Your task to perform on an android device: search for starred emails in the gmail app Image 0: 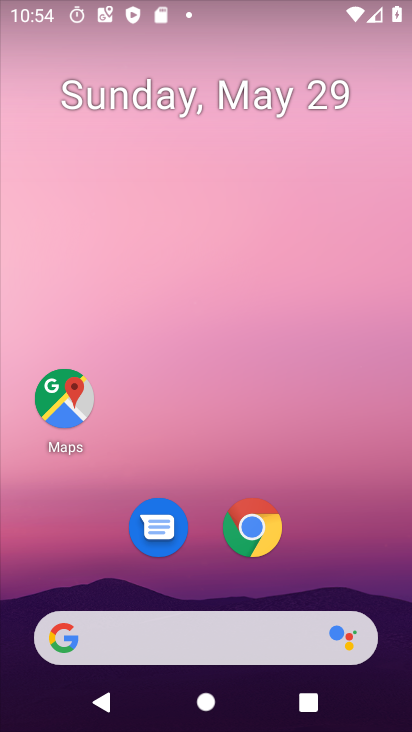
Step 0: drag from (357, 551) to (284, 84)
Your task to perform on an android device: search for starred emails in the gmail app Image 1: 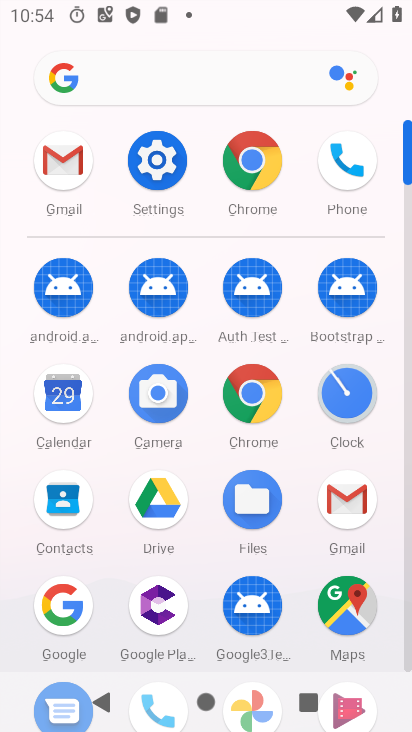
Step 1: click (68, 178)
Your task to perform on an android device: search for starred emails in the gmail app Image 2: 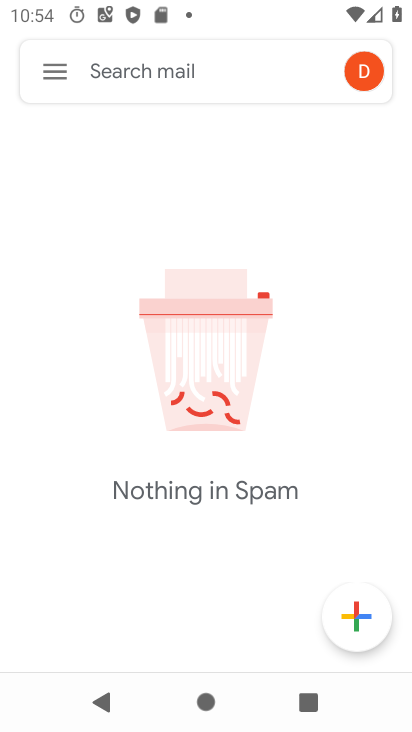
Step 2: click (45, 76)
Your task to perform on an android device: search for starred emails in the gmail app Image 3: 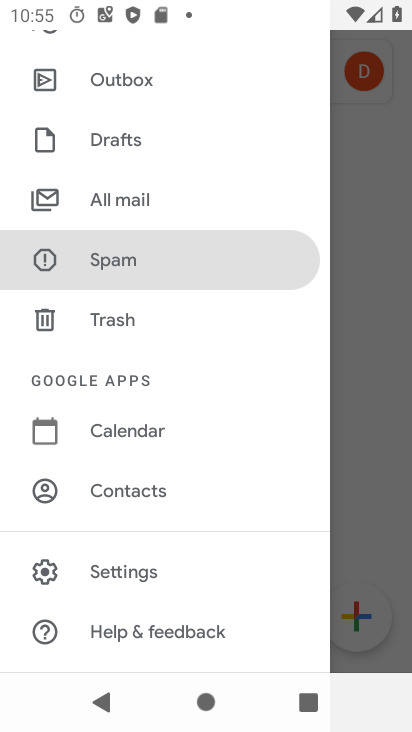
Step 3: drag from (134, 117) to (181, 539)
Your task to perform on an android device: search for starred emails in the gmail app Image 4: 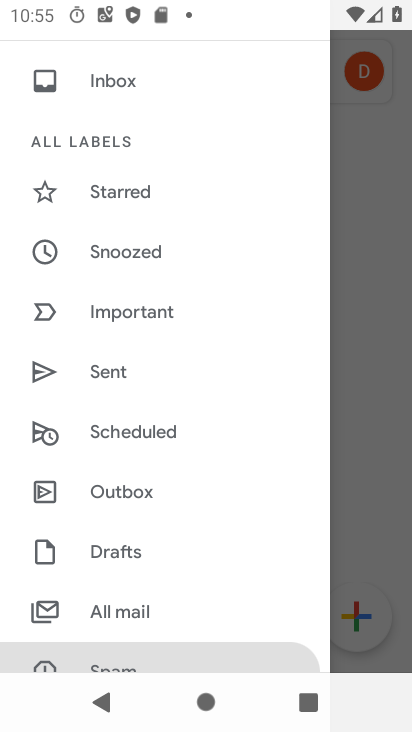
Step 4: click (145, 198)
Your task to perform on an android device: search for starred emails in the gmail app Image 5: 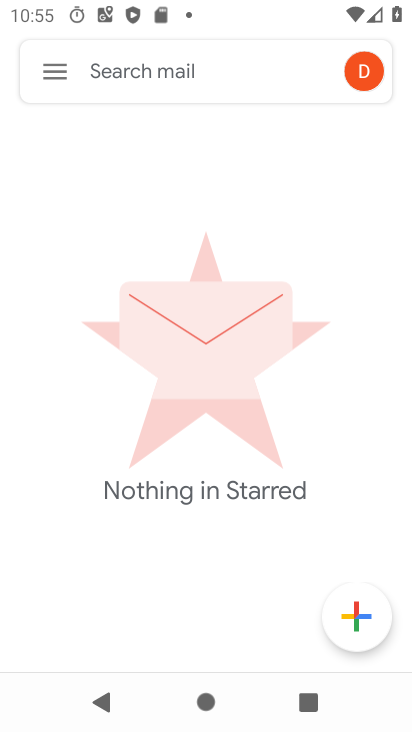
Step 5: task complete